Your task to perform on an android device: check google app version Image 0: 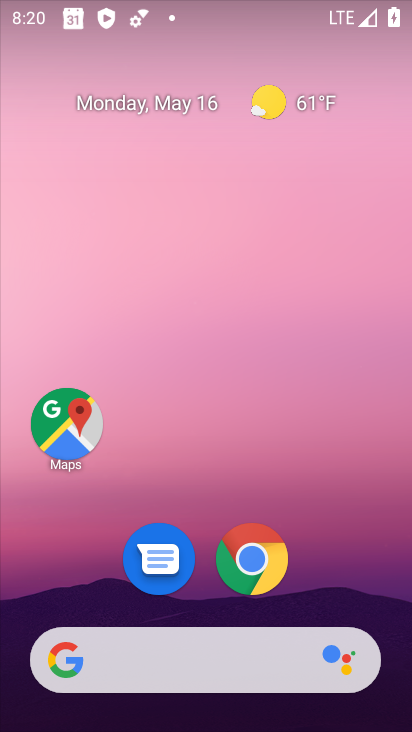
Step 0: drag from (207, 599) to (256, 101)
Your task to perform on an android device: check google app version Image 1: 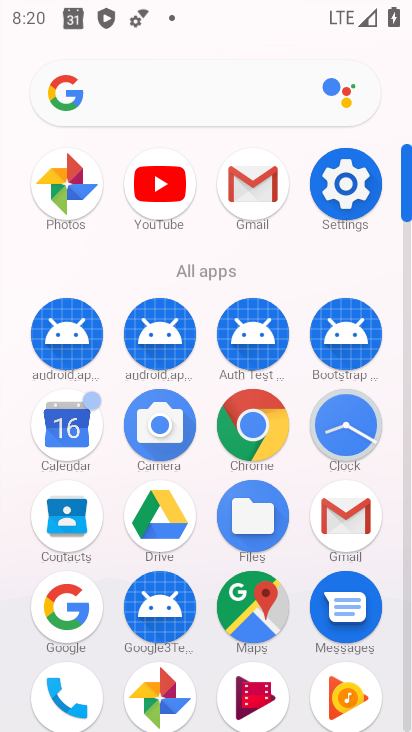
Step 1: drag from (190, 616) to (214, 265)
Your task to perform on an android device: check google app version Image 2: 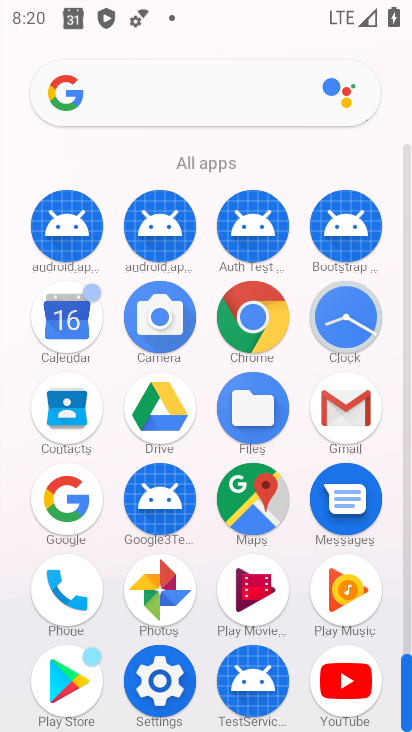
Step 2: click (71, 508)
Your task to perform on an android device: check google app version Image 3: 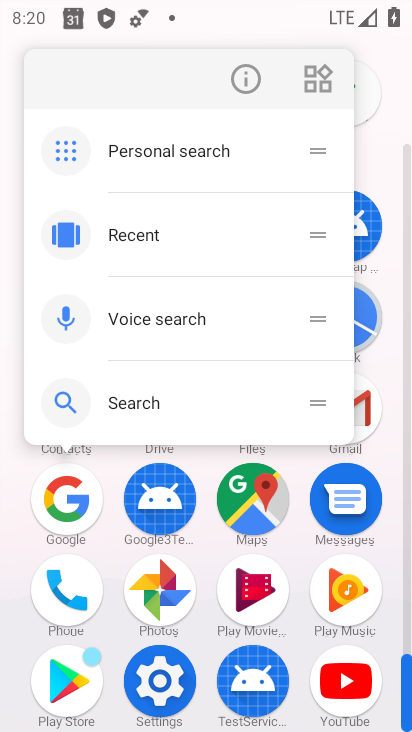
Step 3: click (246, 83)
Your task to perform on an android device: check google app version Image 4: 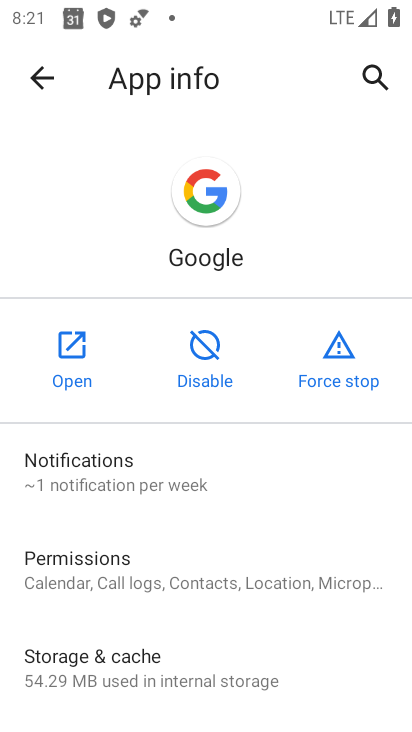
Step 4: drag from (169, 634) to (239, 107)
Your task to perform on an android device: check google app version Image 5: 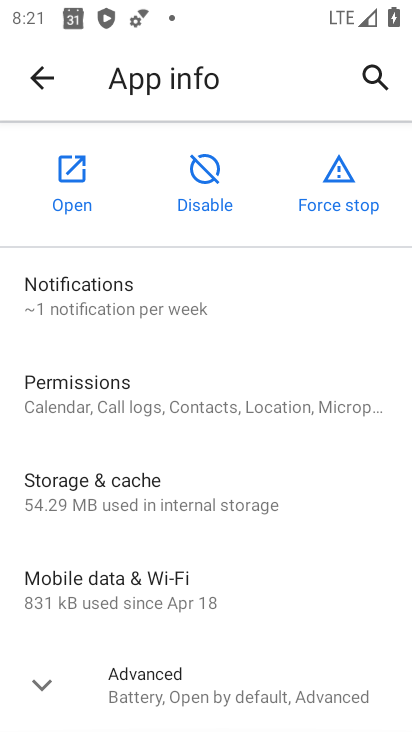
Step 5: click (173, 678)
Your task to perform on an android device: check google app version Image 6: 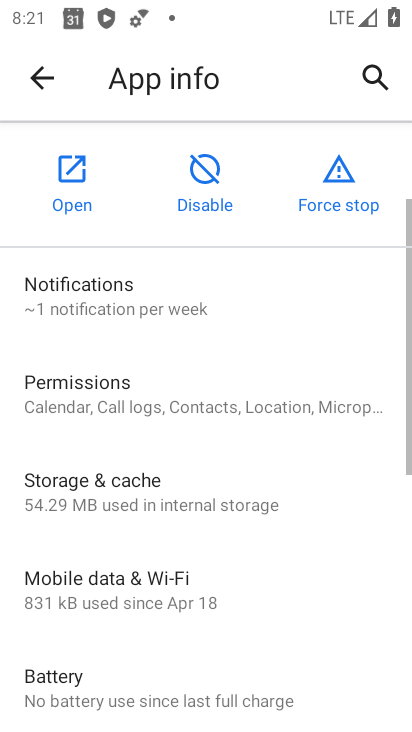
Step 6: task complete